Your task to perform on an android device: uninstall "WhatsApp Messenger" Image 0: 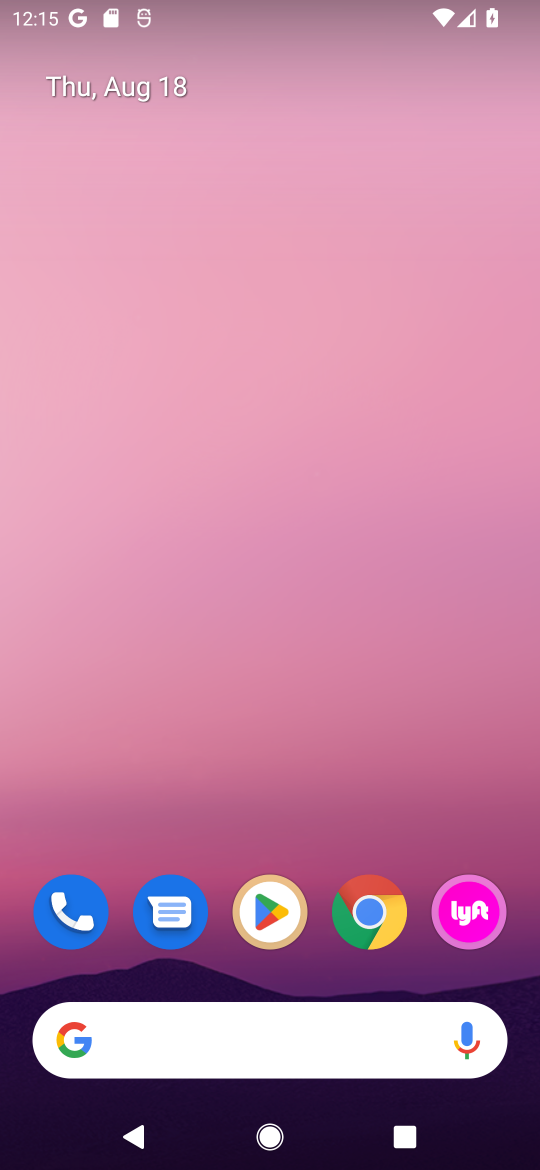
Step 0: click (279, 893)
Your task to perform on an android device: uninstall "WhatsApp Messenger" Image 1: 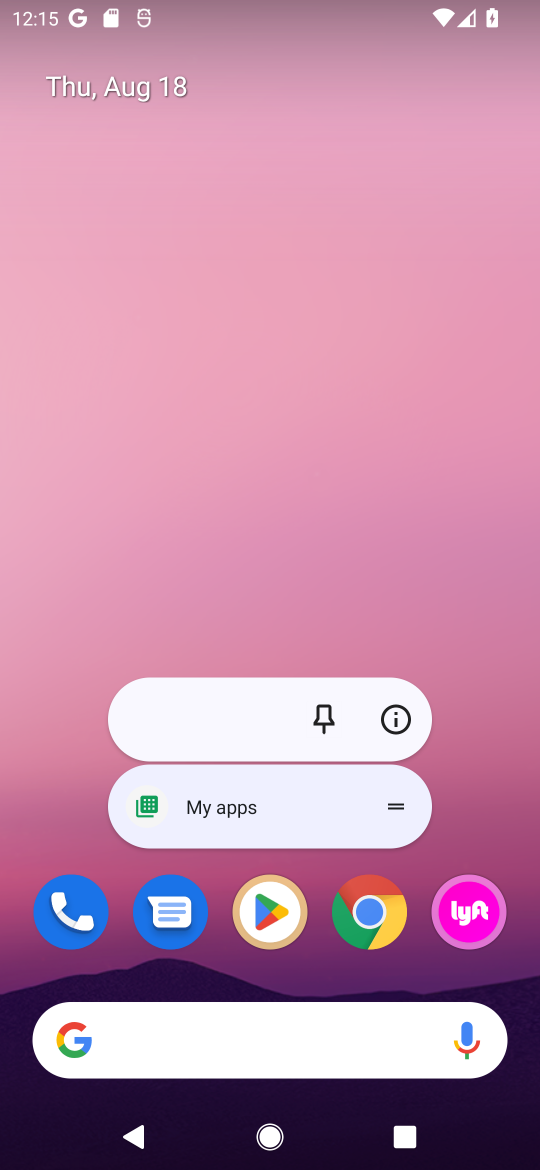
Step 1: click (269, 919)
Your task to perform on an android device: uninstall "WhatsApp Messenger" Image 2: 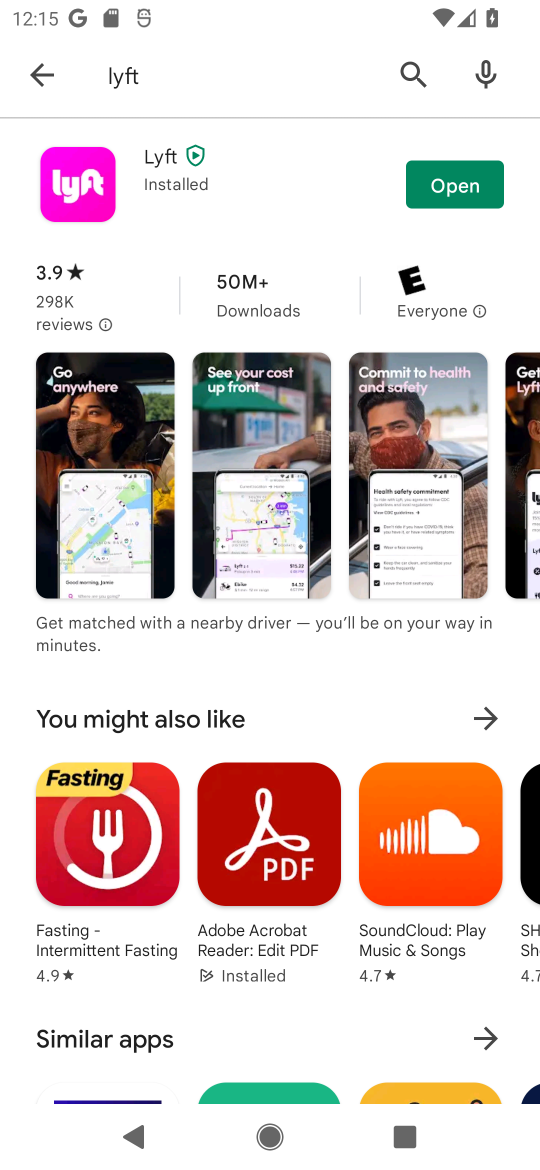
Step 2: click (416, 82)
Your task to perform on an android device: uninstall "WhatsApp Messenger" Image 3: 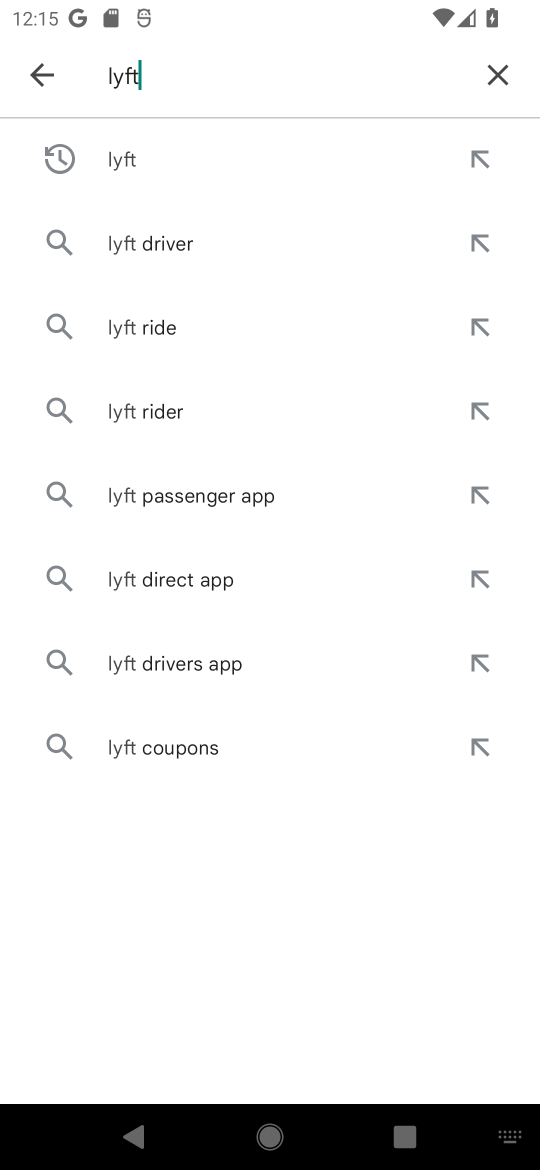
Step 3: click (487, 68)
Your task to perform on an android device: uninstall "WhatsApp Messenger" Image 4: 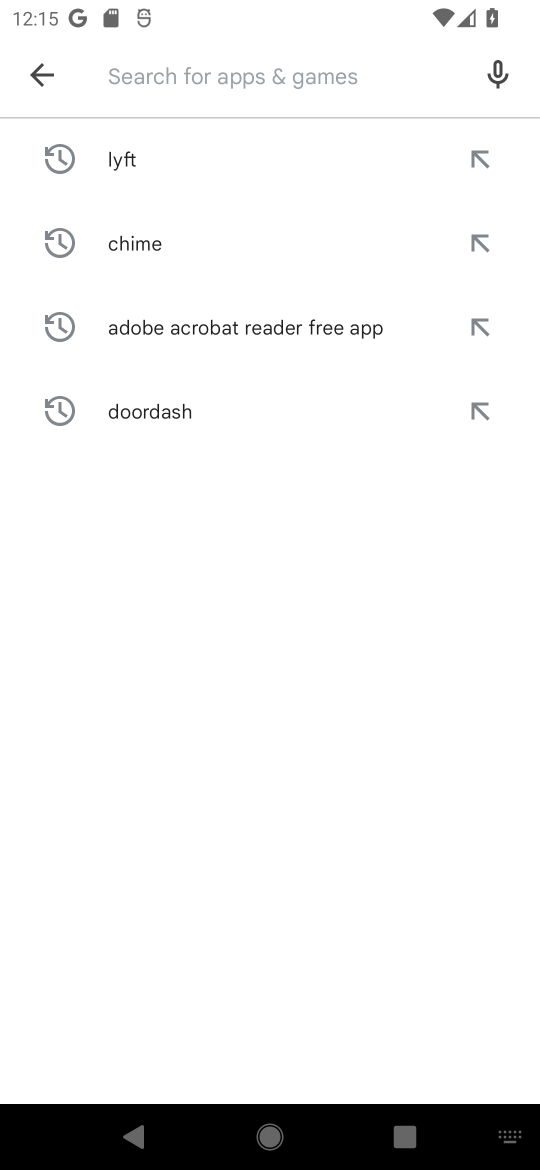
Step 4: click (145, 72)
Your task to perform on an android device: uninstall "WhatsApp Messenger" Image 5: 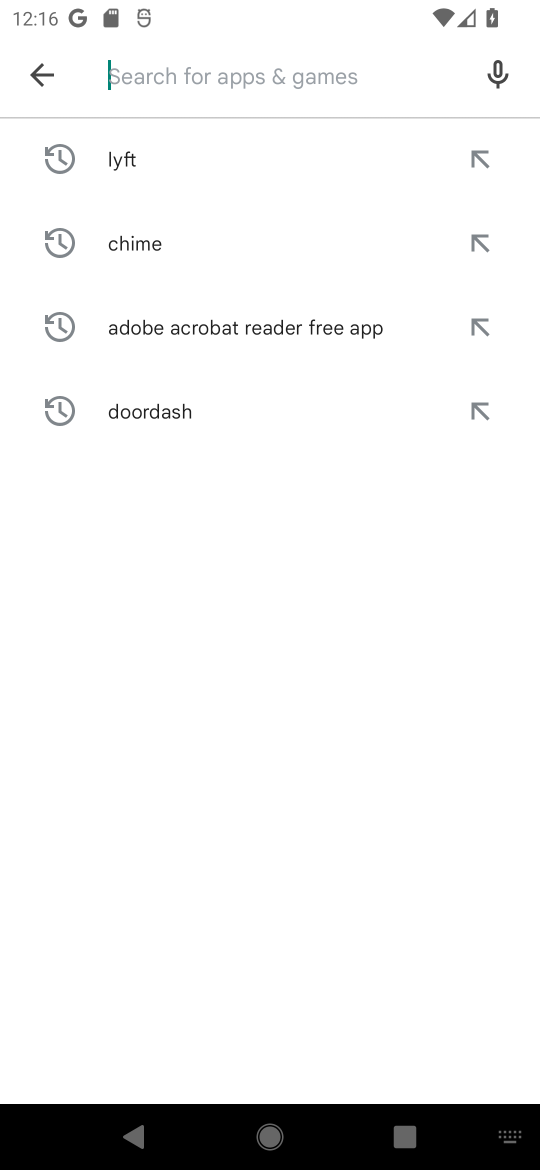
Step 5: click (176, 64)
Your task to perform on an android device: uninstall "WhatsApp Messenger" Image 6: 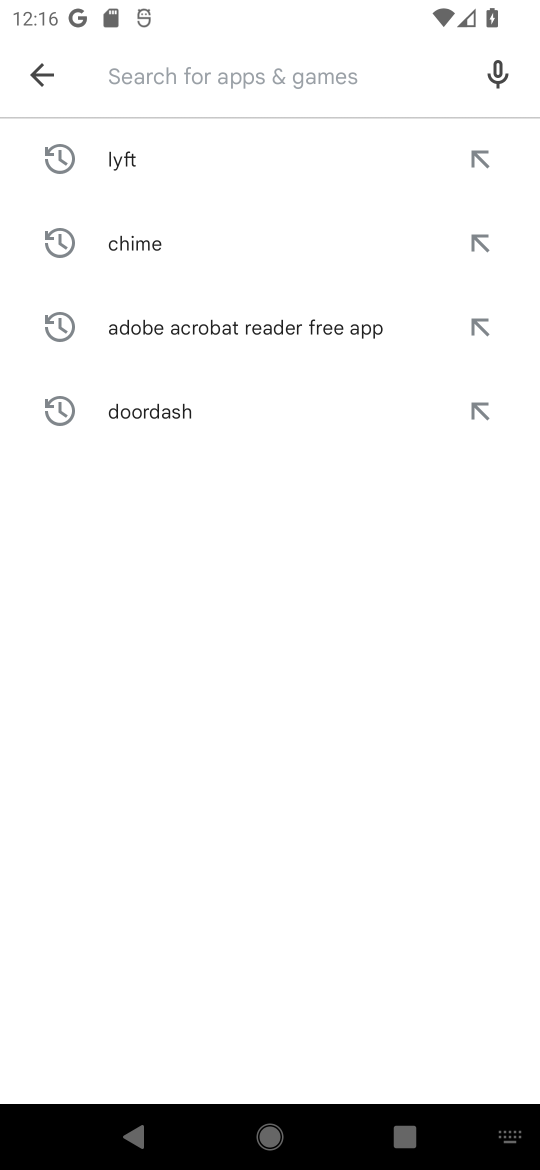
Step 6: type "WhatsApp Messenger"
Your task to perform on an android device: uninstall "WhatsApp Messenger" Image 7: 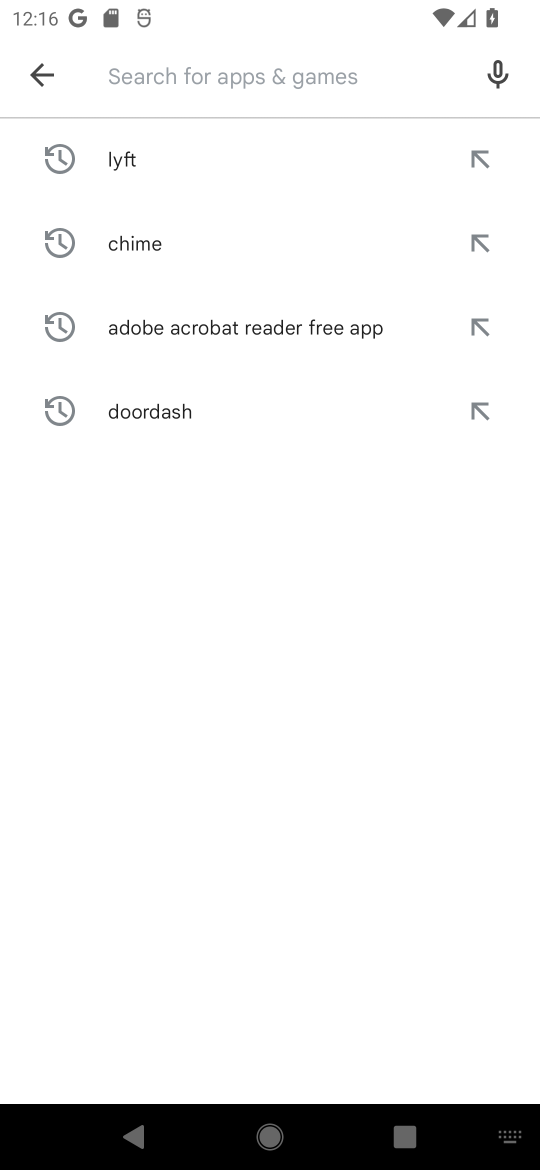
Step 7: click (325, 726)
Your task to perform on an android device: uninstall "WhatsApp Messenger" Image 8: 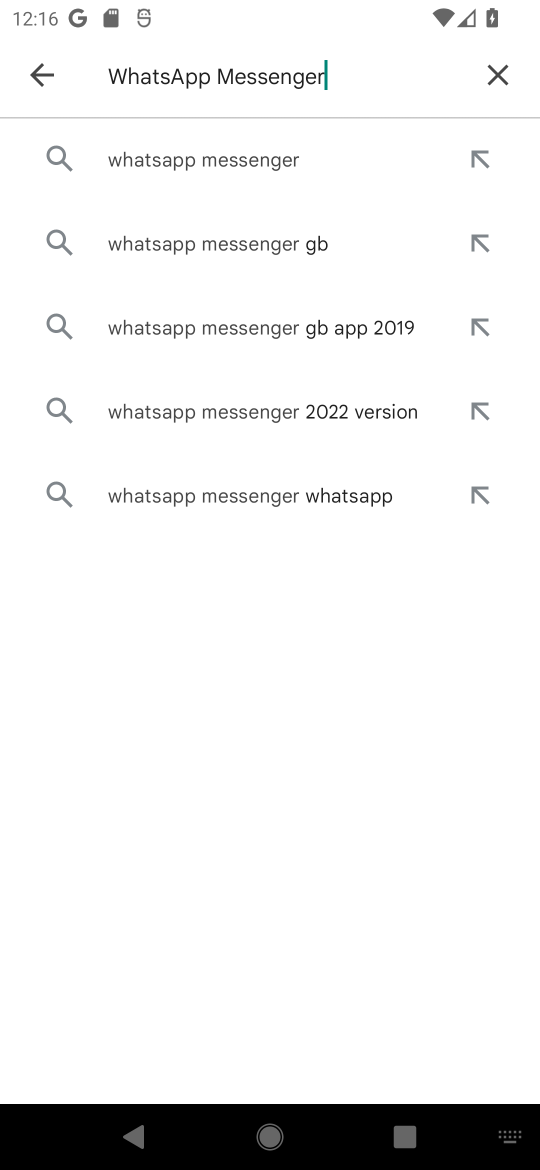
Step 8: click (282, 156)
Your task to perform on an android device: uninstall "WhatsApp Messenger" Image 9: 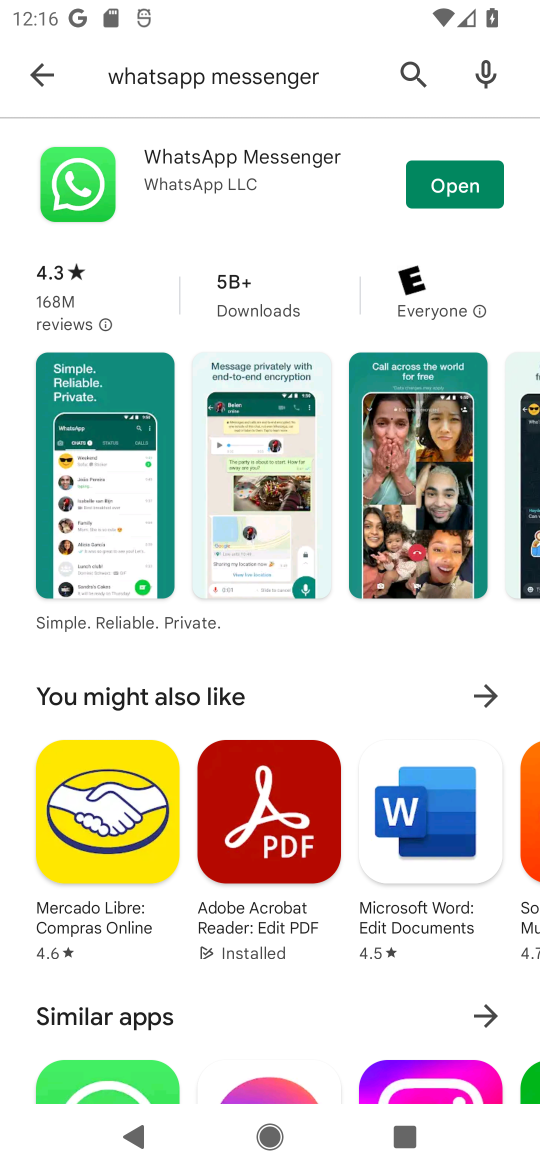
Step 9: click (200, 186)
Your task to perform on an android device: uninstall "WhatsApp Messenger" Image 10: 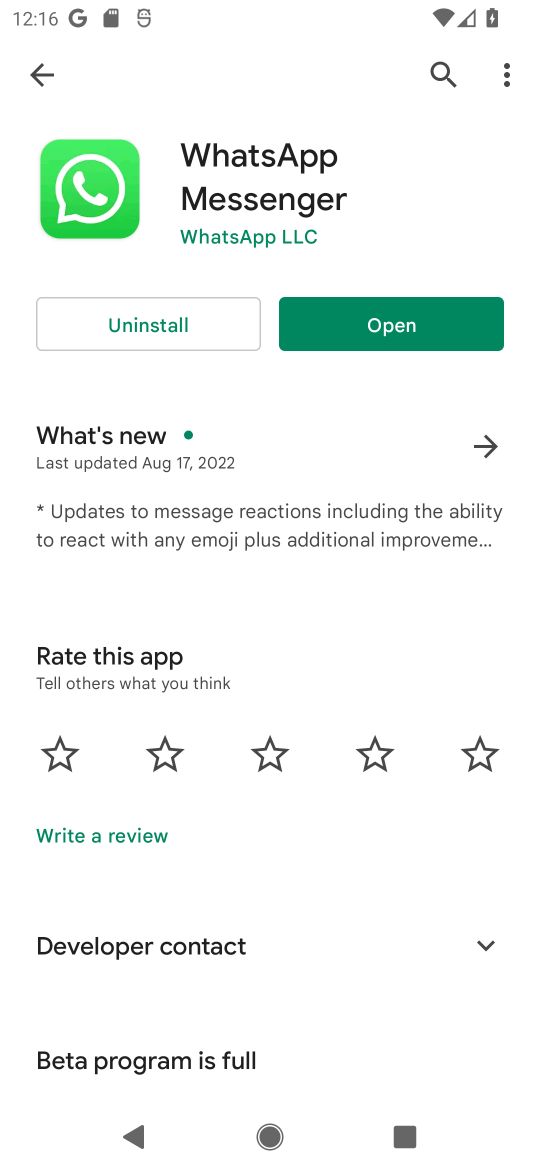
Step 10: click (144, 322)
Your task to perform on an android device: uninstall "WhatsApp Messenger" Image 11: 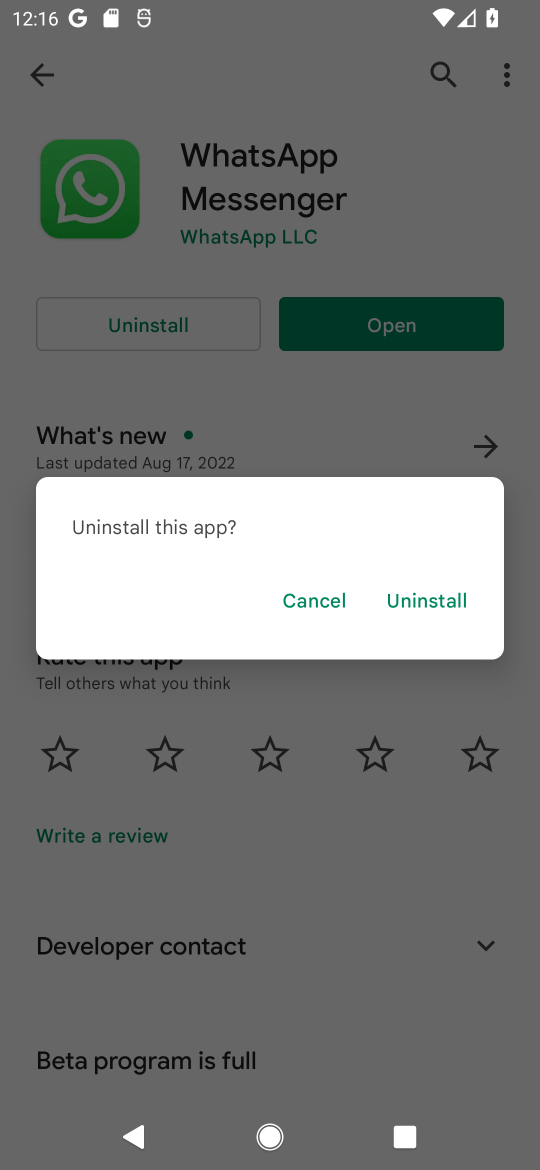
Step 11: click (433, 612)
Your task to perform on an android device: uninstall "WhatsApp Messenger" Image 12: 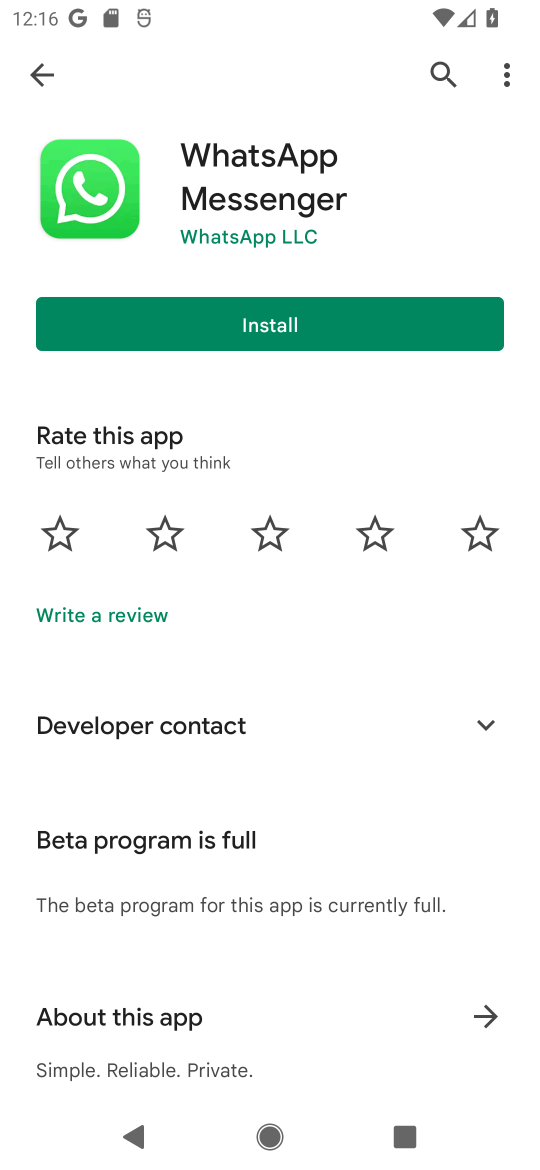
Step 12: task complete